Your task to perform on an android device: check data usage Image 0: 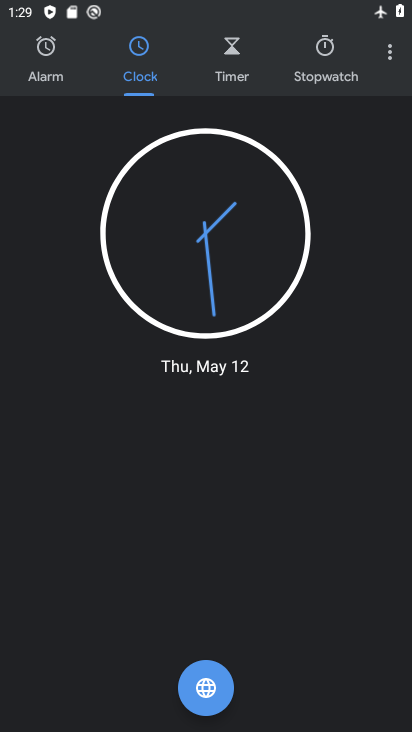
Step 0: press home button
Your task to perform on an android device: check data usage Image 1: 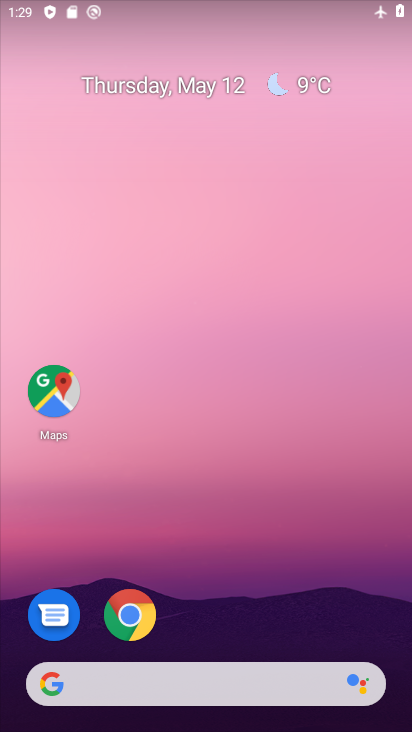
Step 1: drag from (172, 681) to (165, 295)
Your task to perform on an android device: check data usage Image 2: 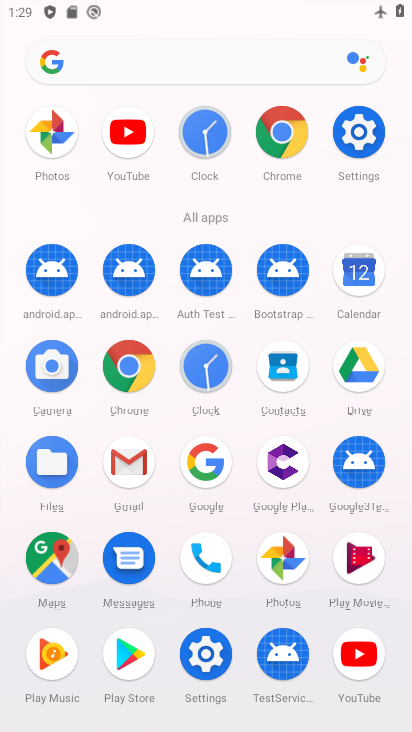
Step 2: click (368, 129)
Your task to perform on an android device: check data usage Image 3: 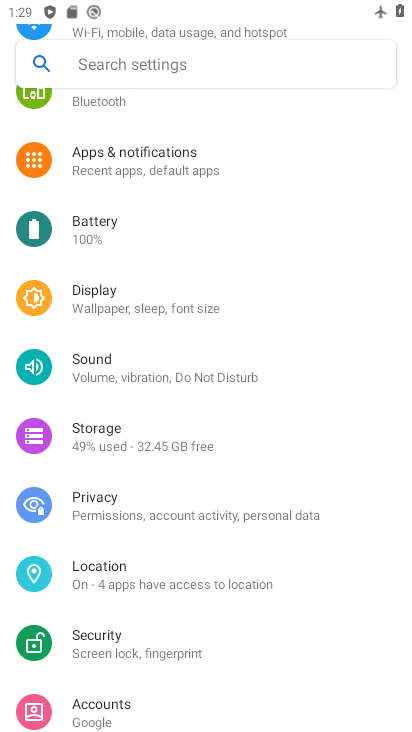
Step 3: drag from (170, 184) to (171, 604)
Your task to perform on an android device: check data usage Image 4: 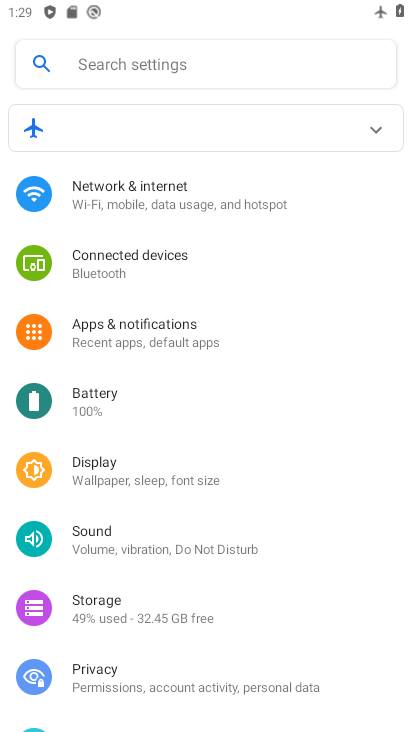
Step 4: click (99, 203)
Your task to perform on an android device: check data usage Image 5: 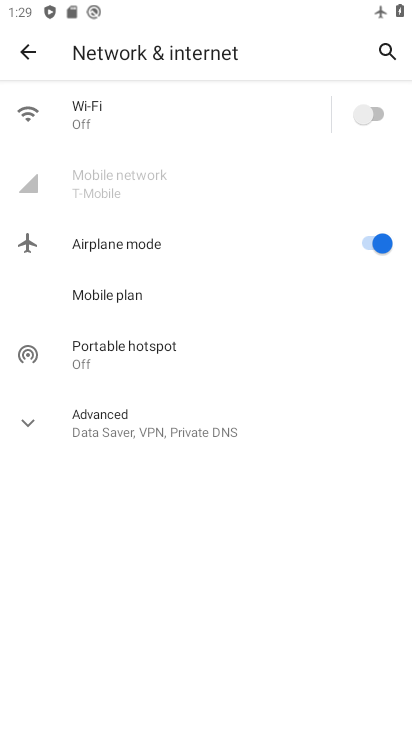
Step 5: task complete